Your task to perform on an android device: Go to sound settings Image 0: 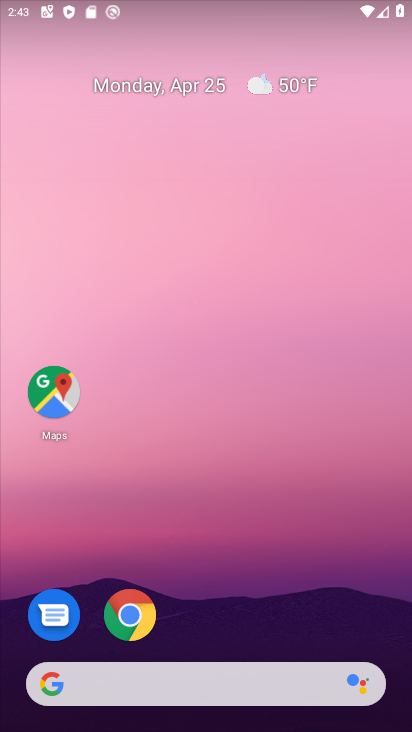
Step 0: drag from (193, 726) to (183, 121)
Your task to perform on an android device: Go to sound settings Image 1: 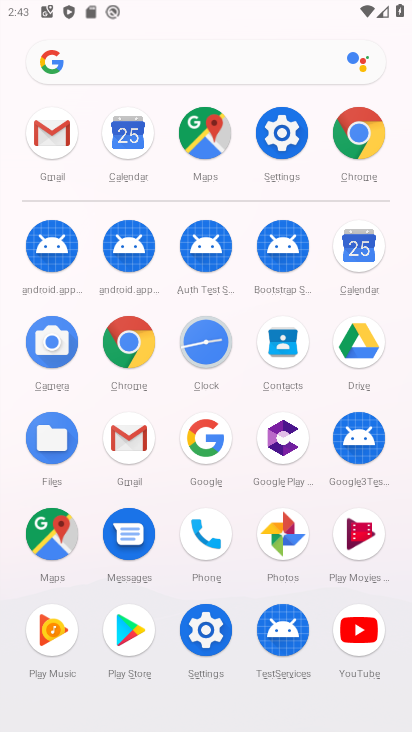
Step 1: click (281, 134)
Your task to perform on an android device: Go to sound settings Image 2: 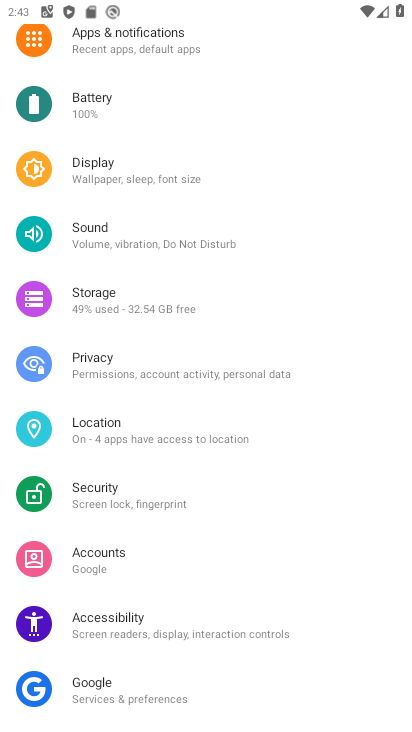
Step 2: click (96, 238)
Your task to perform on an android device: Go to sound settings Image 3: 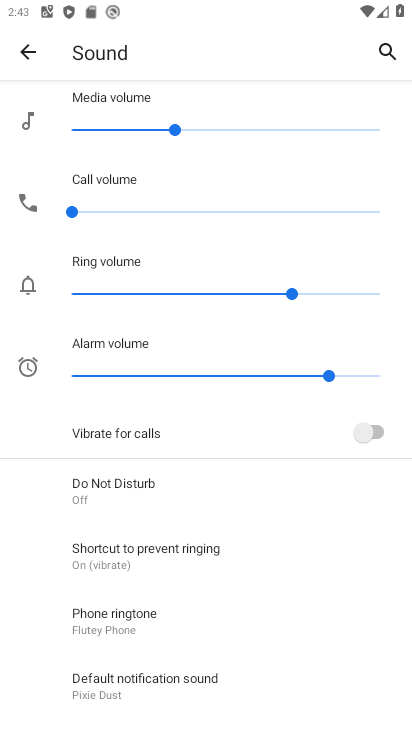
Step 3: task complete